Your task to perform on an android device: Search for sushi restaurants on Maps Image 0: 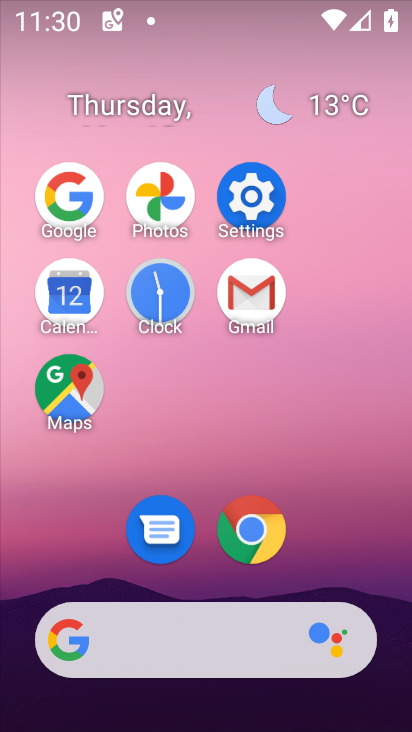
Step 0: click (45, 409)
Your task to perform on an android device: Search for sushi restaurants on Maps Image 1: 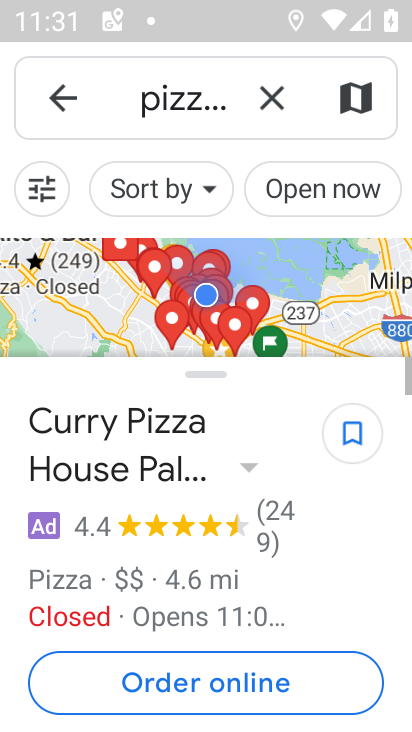
Step 1: click (272, 99)
Your task to perform on an android device: Search for sushi restaurants on Maps Image 2: 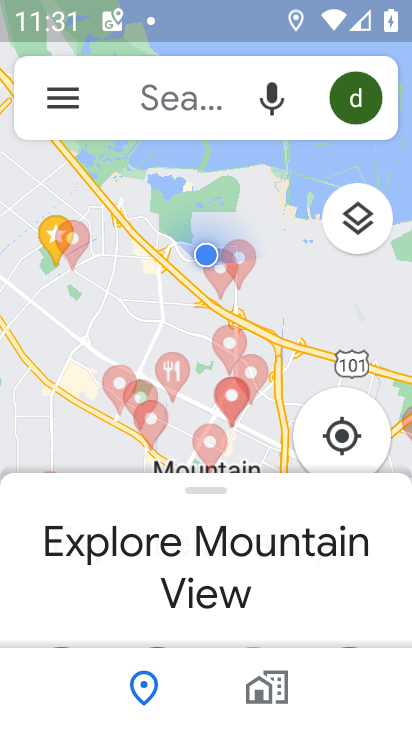
Step 2: click (166, 93)
Your task to perform on an android device: Search for sushi restaurants on Maps Image 3: 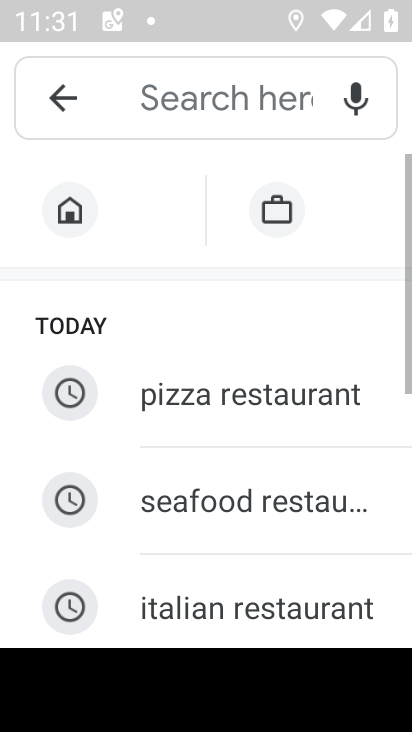
Step 3: click (227, 497)
Your task to perform on an android device: Search for sushi restaurants on Maps Image 4: 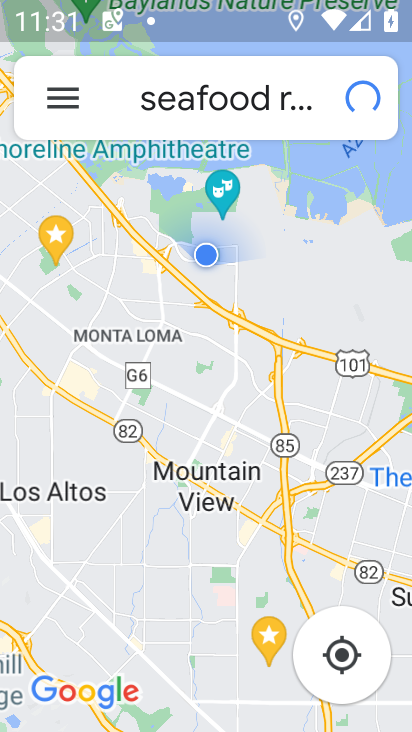
Step 4: task complete